Your task to perform on an android device: turn on the 24-hour format for clock Image 0: 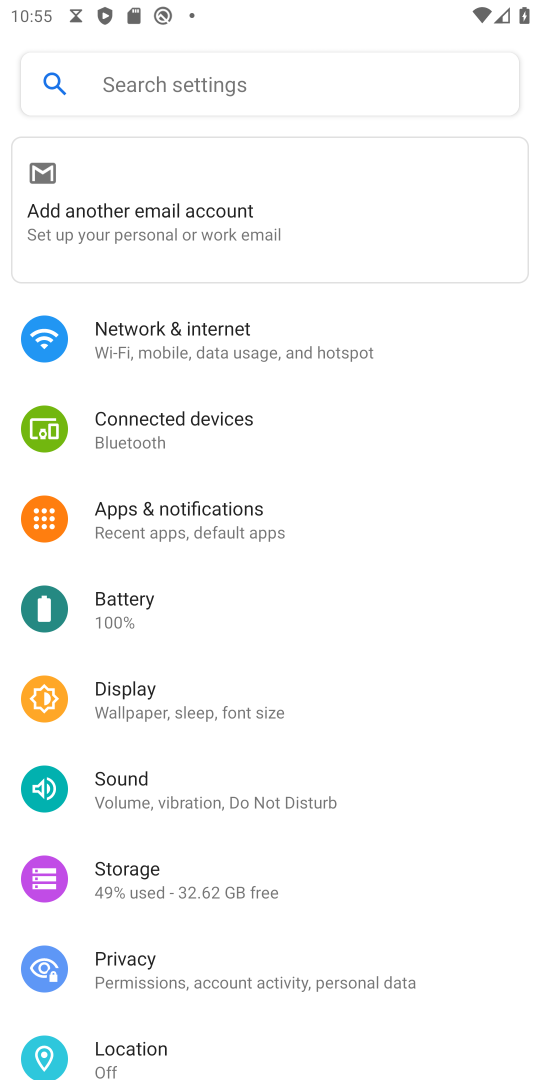
Step 0: press home button
Your task to perform on an android device: turn on the 24-hour format for clock Image 1: 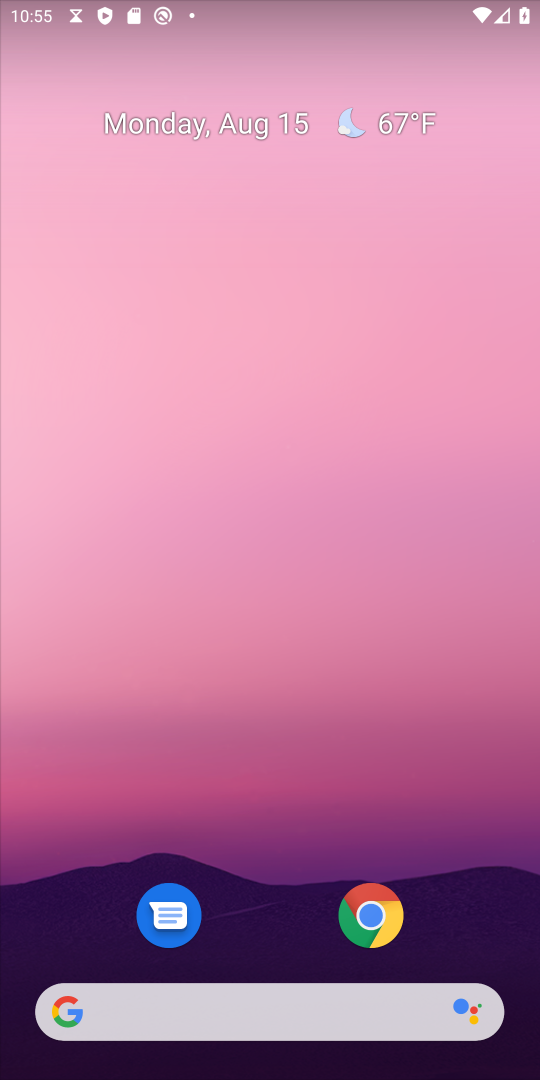
Step 1: drag from (483, 851) to (364, 32)
Your task to perform on an android device: turn on the 24-hour format for clock Image 2: 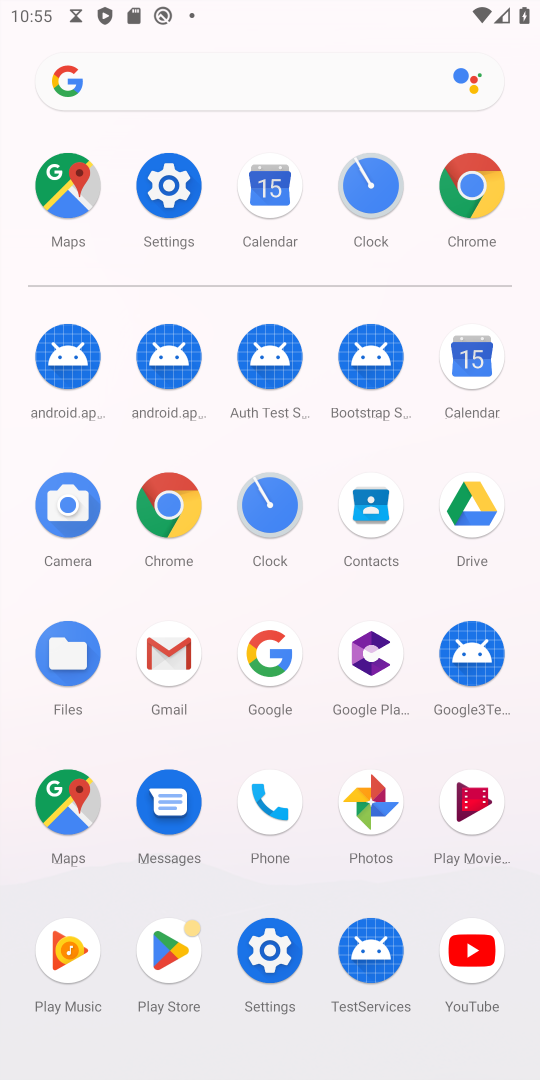
Step 2: click (281, 507)
Your task to perform on an android device: turn on the 24-hour format for clock Image 3: 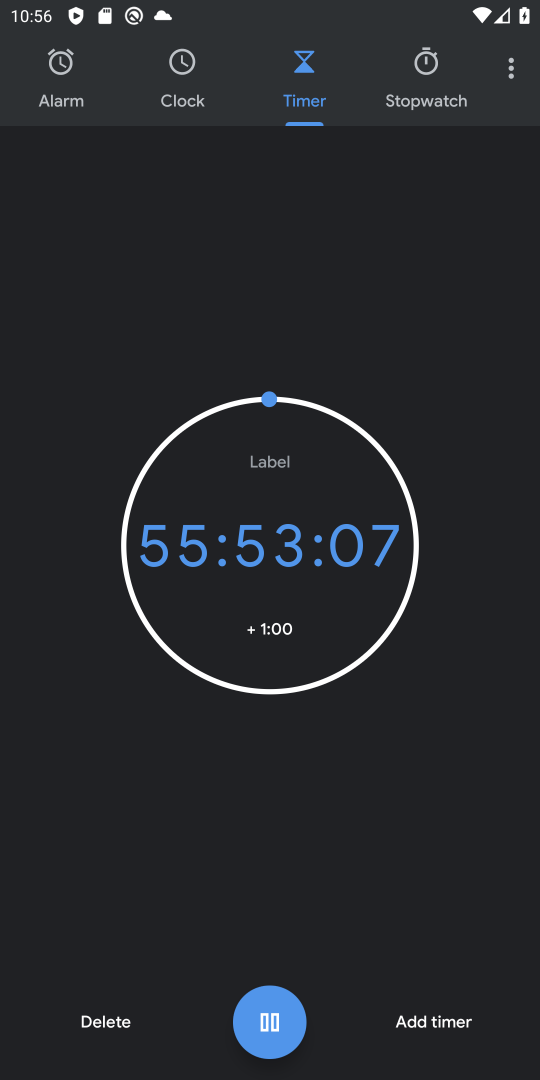
Step 3: click (528, 74)
Your task to perform on an android device: turn on the 24-hour format for clock Image 4: 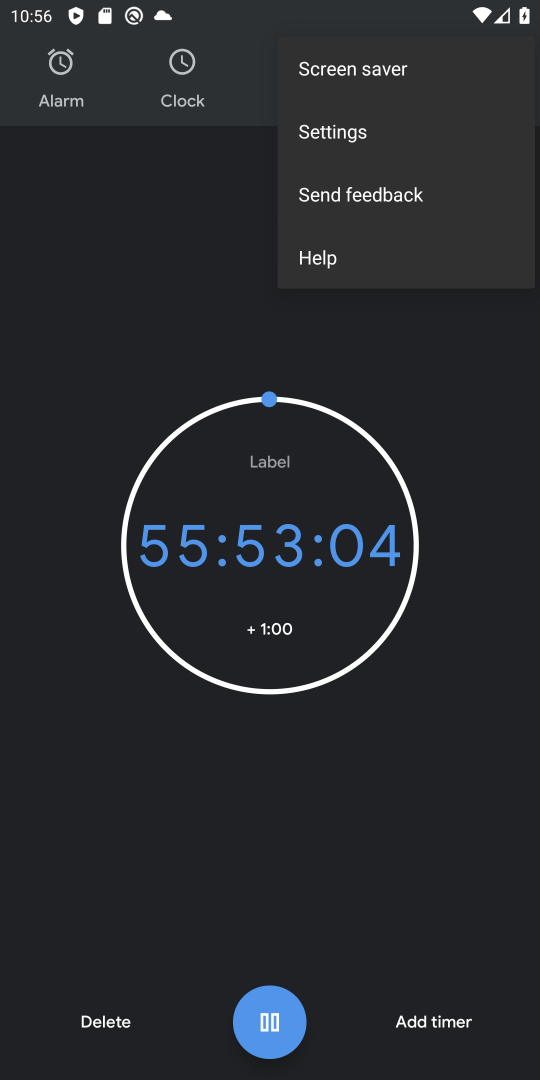
Step 4: click (389, 130)
Your task to perform on an android device: turn on the 24-hour format for clock Image 5: 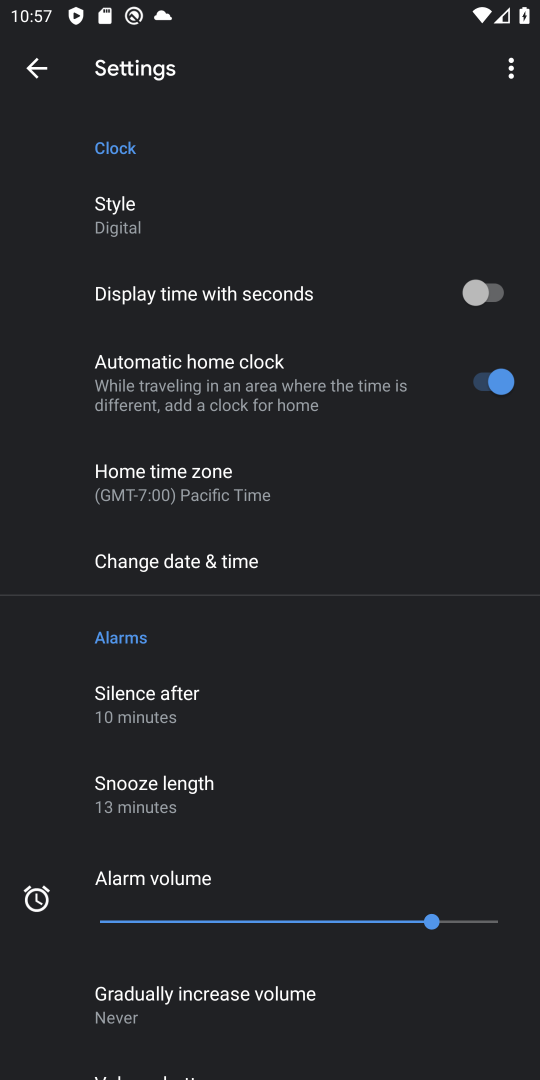
Step 5: drag from (270, 771) to (231, 354)
Your task to perform on an android device: turn on the 24-hour format for clock Image 6: 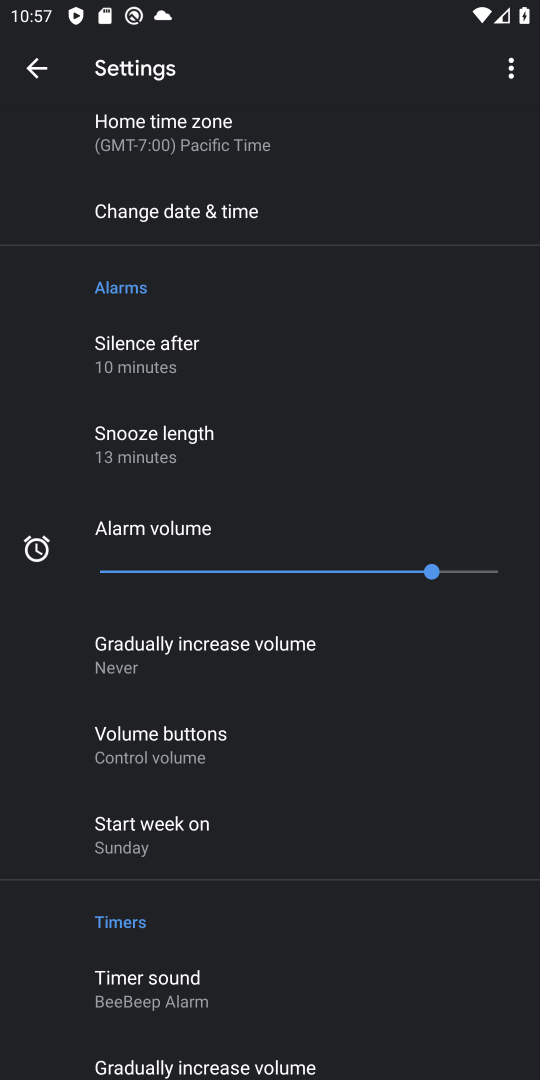
Step 6: drag from (243, 853) to (231, 391)
Your task to perform on an android device: turn on the 24-hour format for clock Image 7: 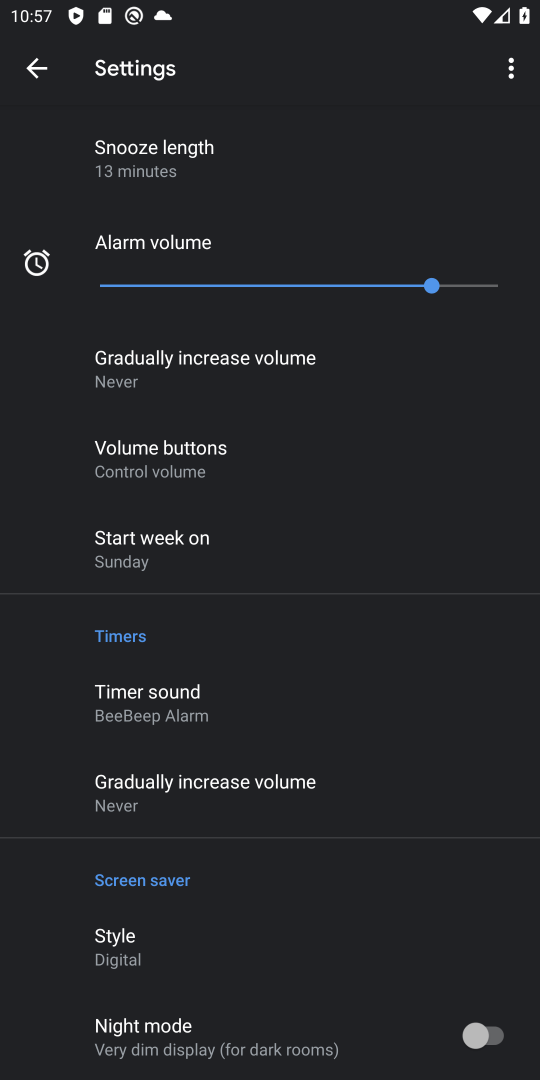
Step 7: drag from (298, 909) to (226, 499)
Your task to perform on an android device: turn on the 24-hour format for clock Image 8: 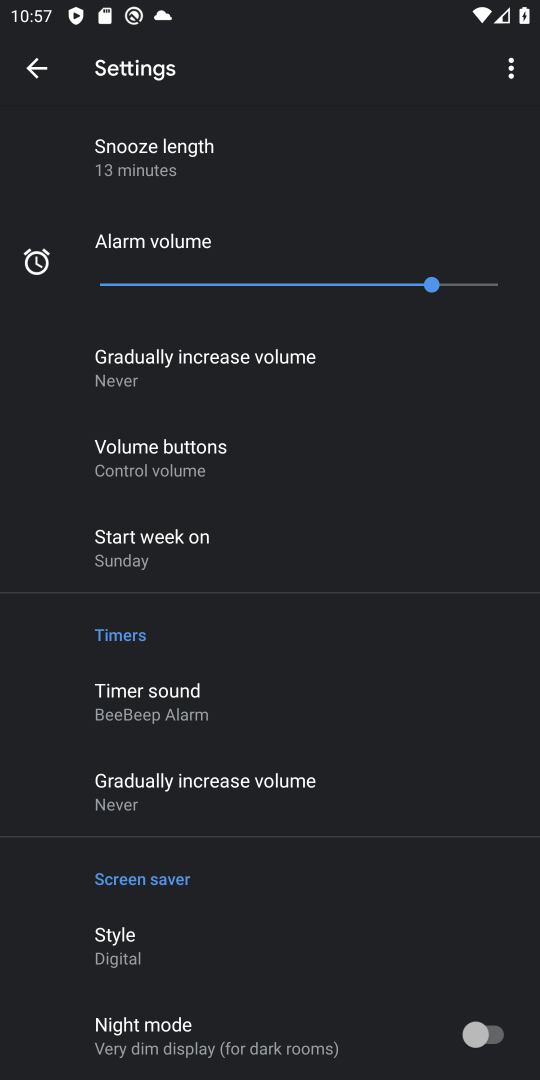
Step 8: drag from (251, 864) to (221, 537)
Your task to perform on an android device: turn on the 24-hour format for clock Image 9: 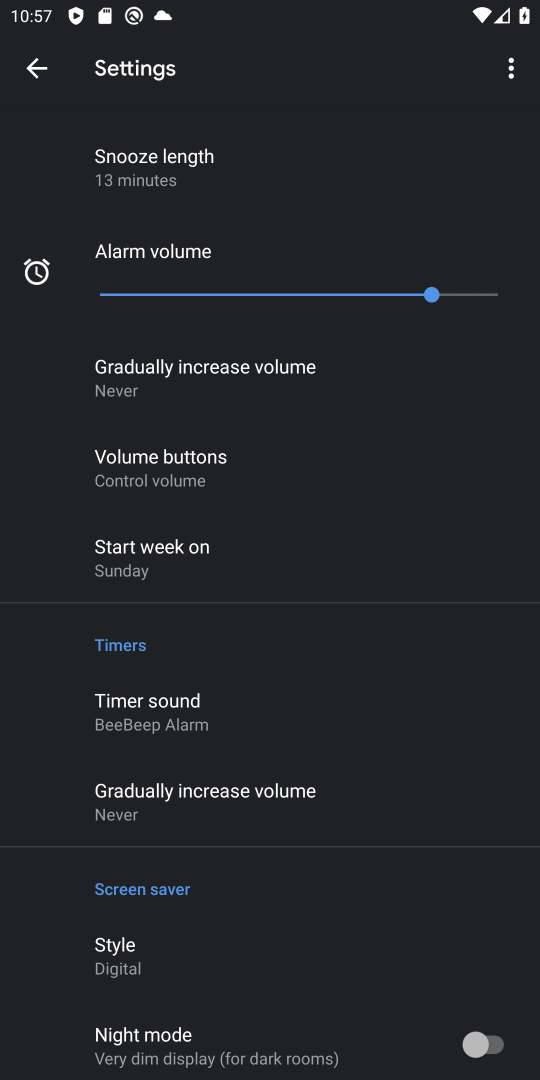
Step 9: drag from (283, 563) to (291, 1077)
Your task to perform on an android device: turn on the 24-hour format for clock Image 10: 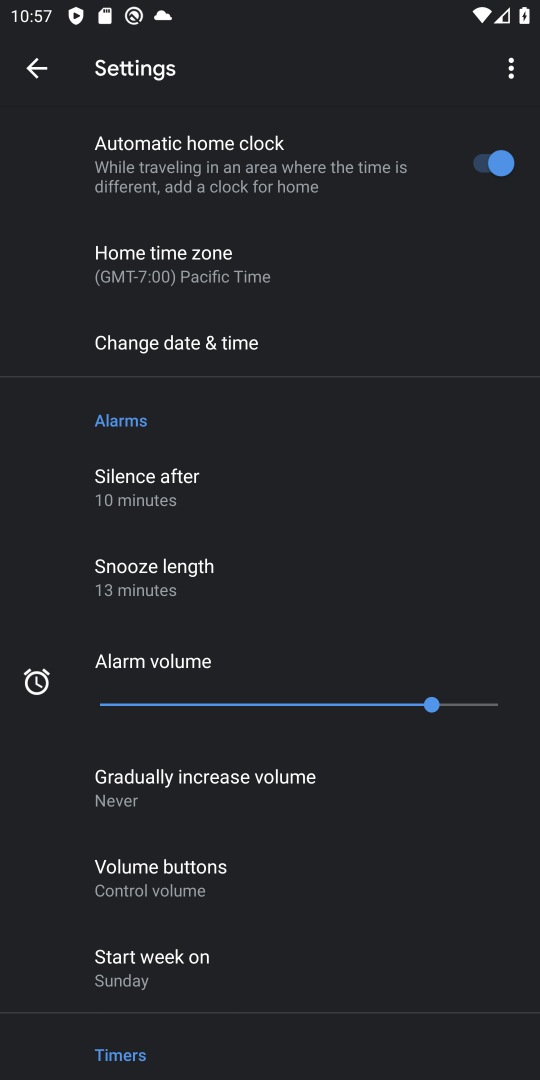
Step 10: click (145, 359)
Your task to perform on an android device: turn on the 24-hour format for clock Image 11: 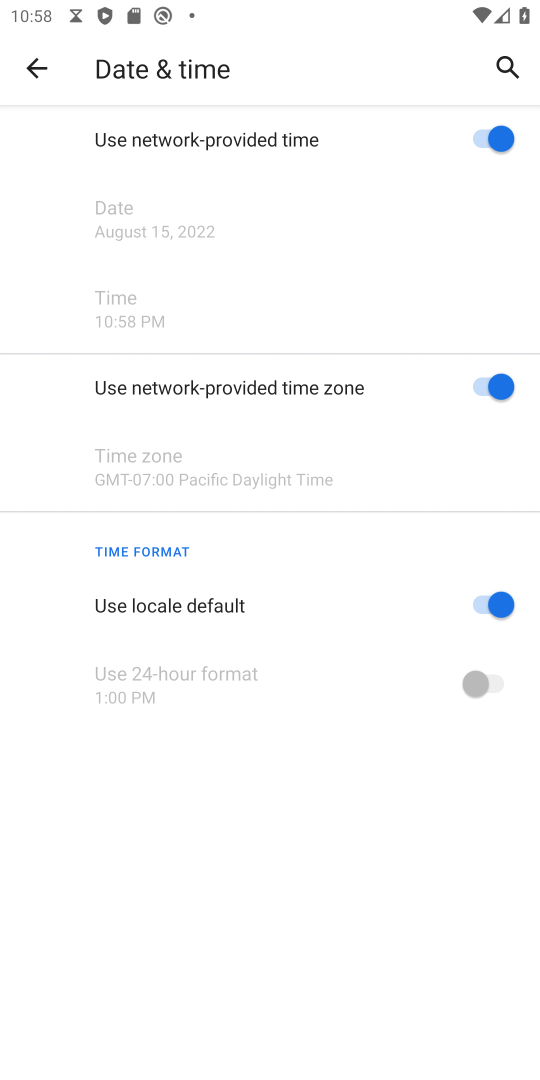
Step 11: click (498, 606)
Your task to perform on an android device: turn on the 24-hour format for clock Image 12: 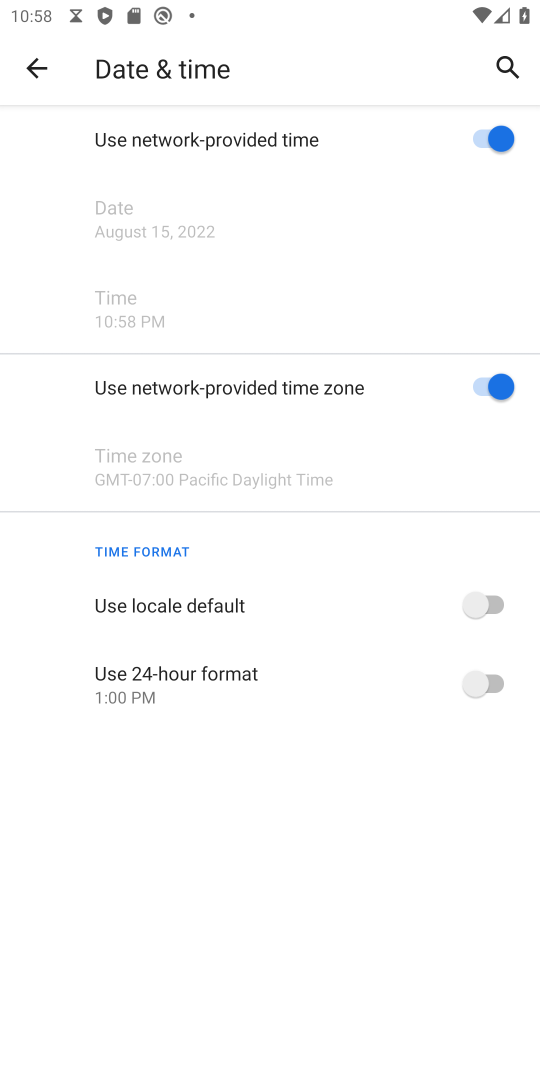
Step 12: click (488, 686)
Your task to perform on an android device: turn on the 24-hour format for clock Image 13: 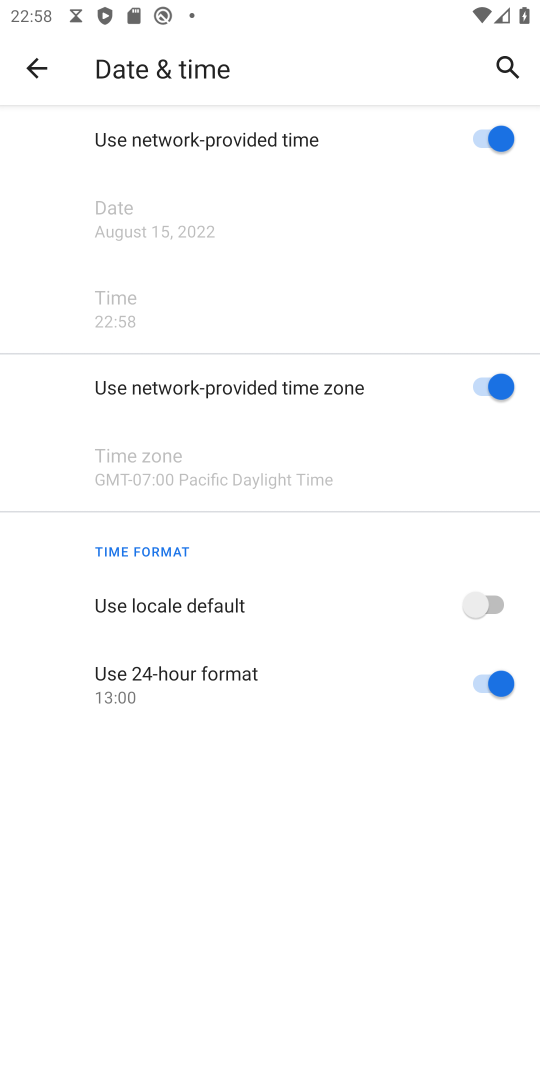
Step 13: task complete